Your task to perform on an android device: delete location history Image 0: 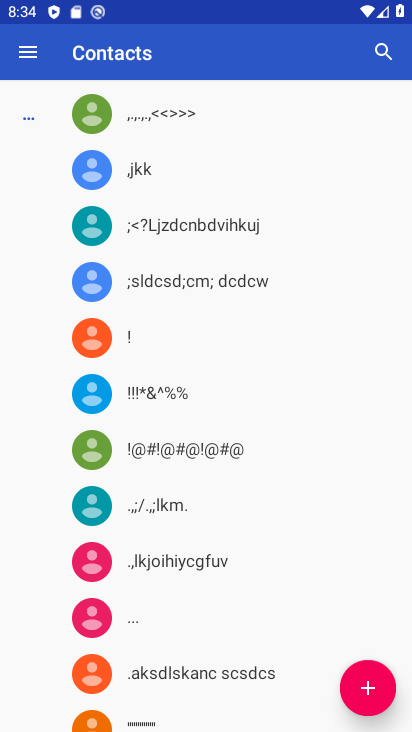
Step 0: press home button
Your task to perform on an android device: delete location history Image 1: 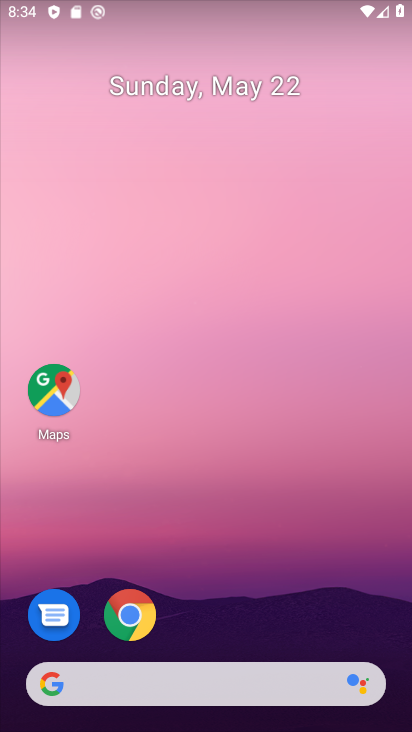
Step 1: drag from (254, 602) to (258, 258)
Your task to perform on an android device: delete location history Image 2: 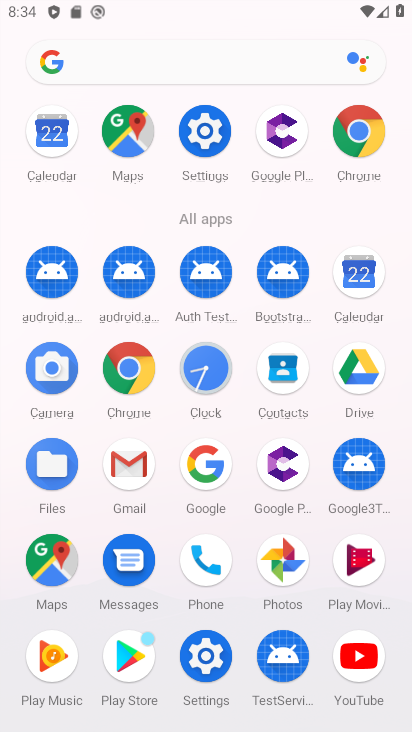
Step 2: click (212, 118)
Your task to perform on an android device: delete location history Image 3: 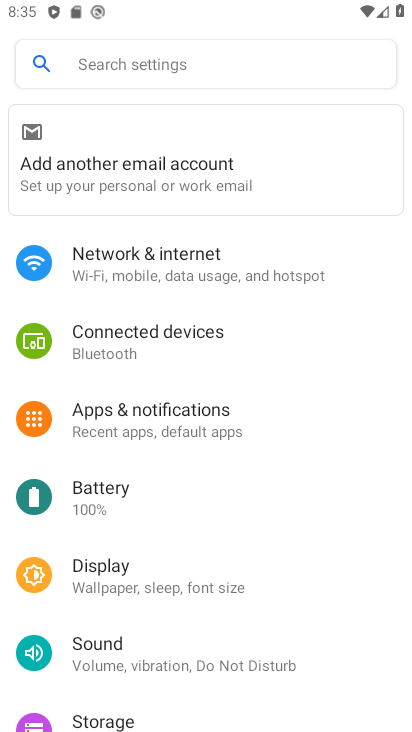
Step 3: drag from (185, 625) to (274, 141)
Your task to perform on an android device: delete location history Image 4: 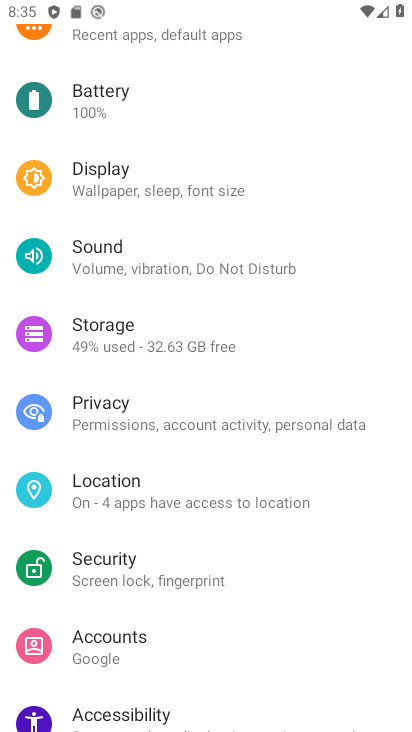
Step 4: drag from (215, 412) to (215, 318)
Your task to perform on an android device: delete location history Image 5: 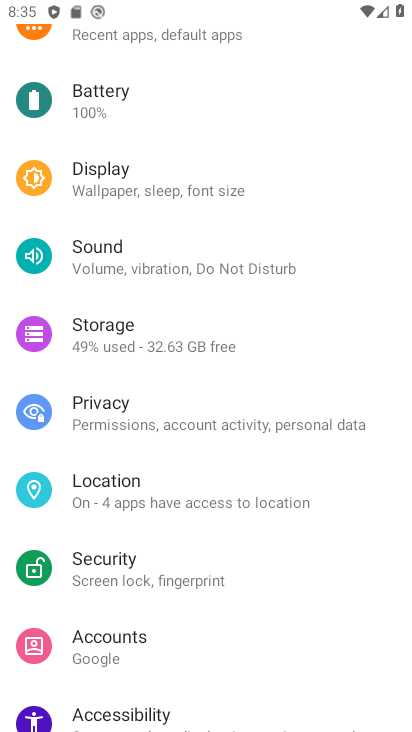
Step 5: drag from (222, 511) to (236, 242)
Your task to perform on an android device: delete location history Image 6: 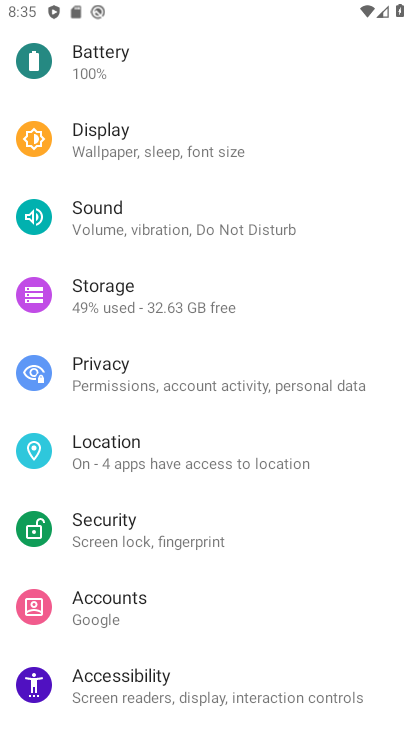
Step 6: click (159, 448)
Your task to perform on an android device: delete location history Image 7: 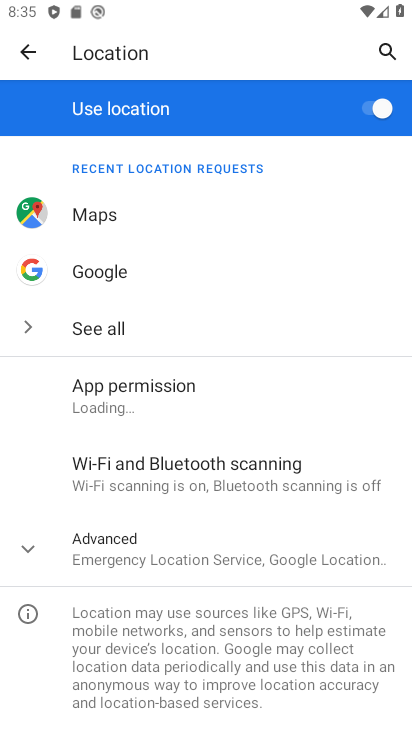
Step 7: click (167, 539)
Your task to perform on an android device: delete location history Image 8: 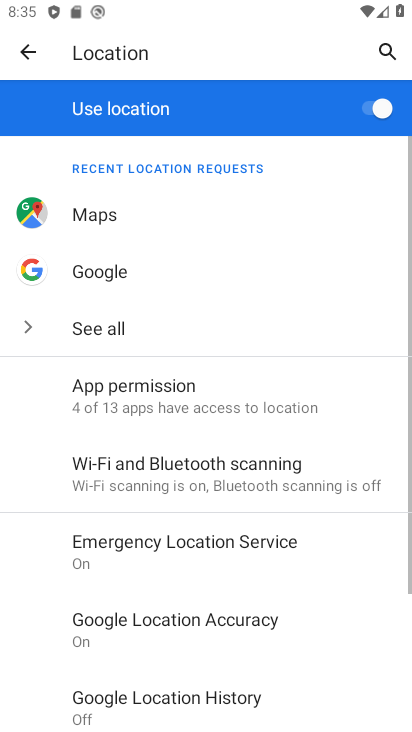
Step 8: drag from (213, 628) to (311, 231)
Your task to perform on an android device: delete location history Image 9: 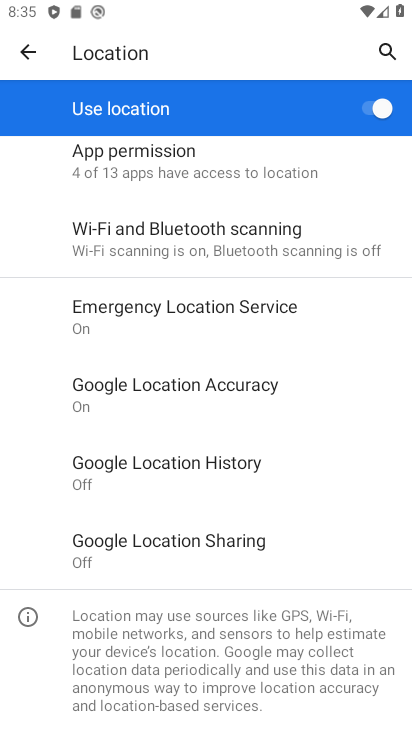
Step 9: click (214, 478)
Your task to perform on an android device: delete location history Image 10: 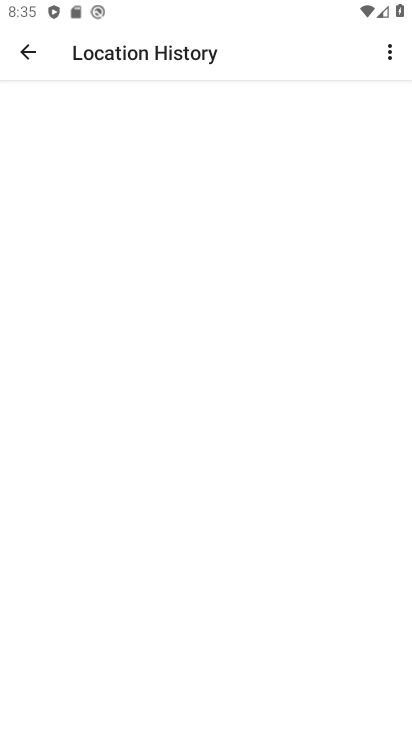
Step 10: task complete